Your task to perform on an android device: Go to Google Image 0: 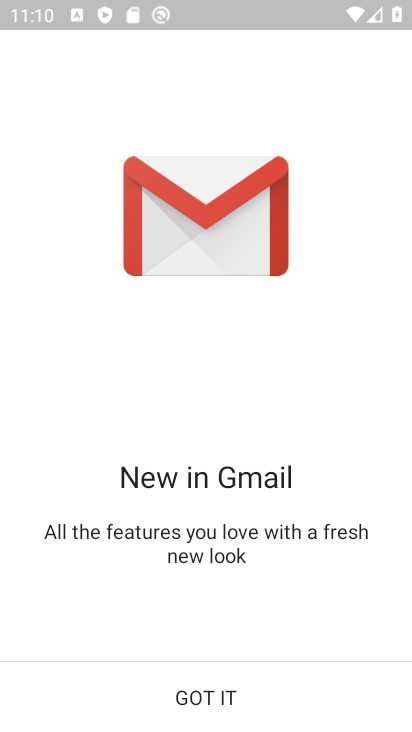
Step 0: press home button
Your task to perform on an android device: Go to Google Image 1: 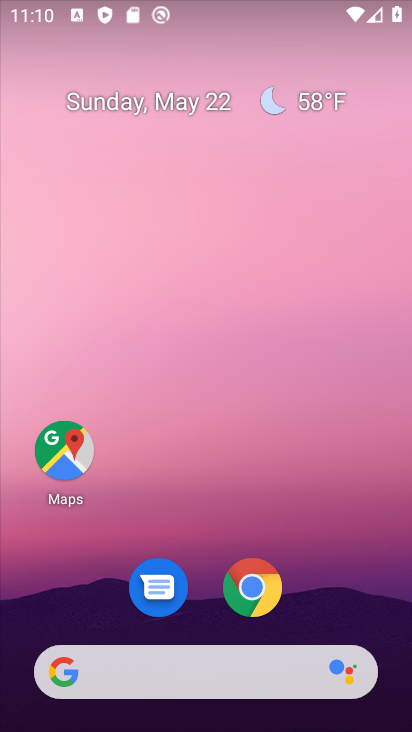
Step 1: click (215, 672)
Your task to perform on an android device: Go to Google Image 2: 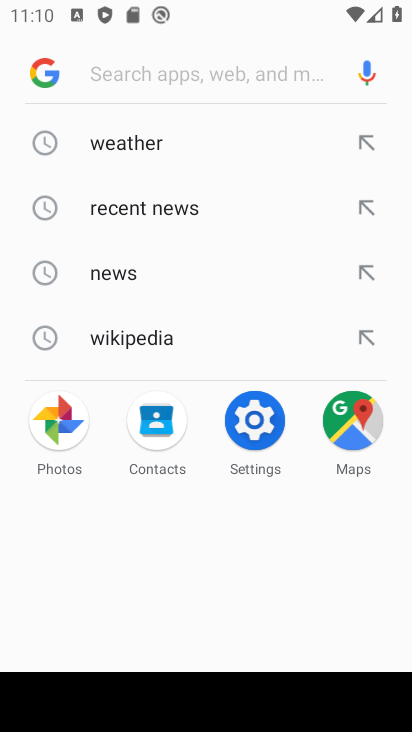
Step 2: click (39, 65)
Your task to perform on an android device: Go to Google Image 3: 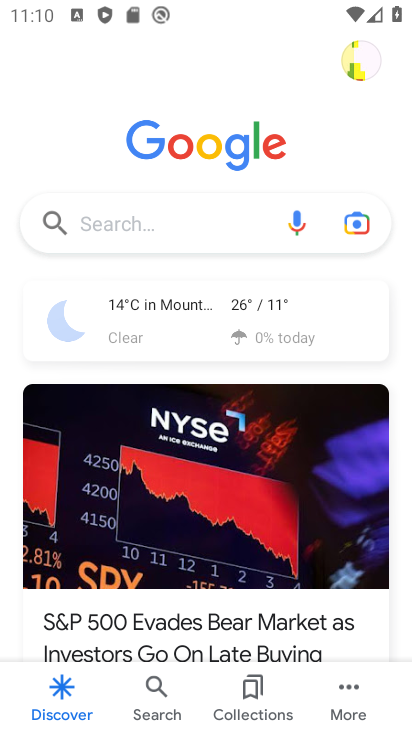
Step 3: task complete